Your task to perform on an android device: clear history in the chrome app Image 0: 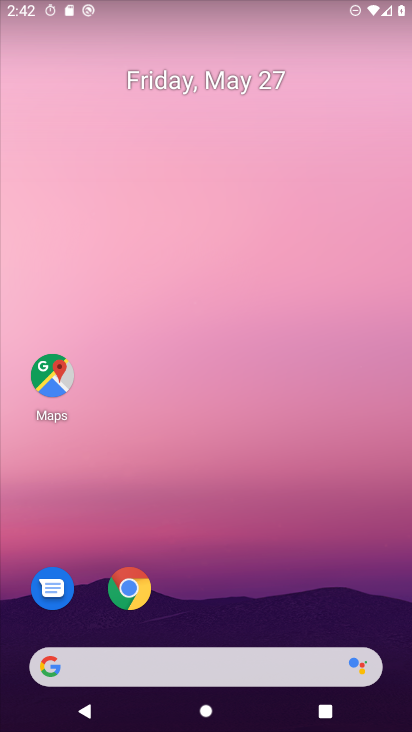
Step 0: click (140, 585)
Your task to perform on an android device: clear history in the chrome app Image 1: 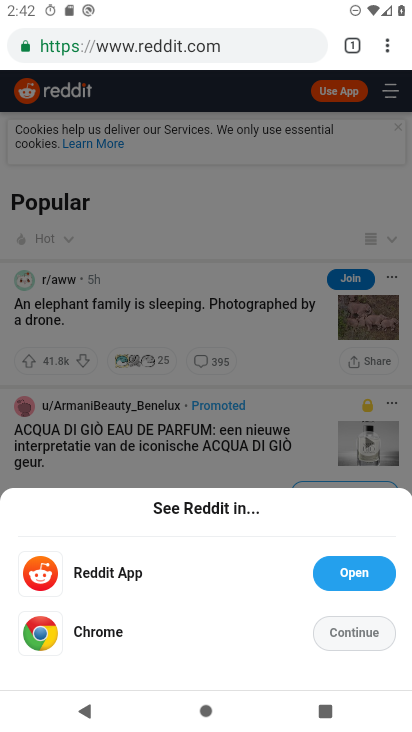
Step 1: click (386, 50)
Your task to perform on an android device: clear history in the chrome app Image 2: 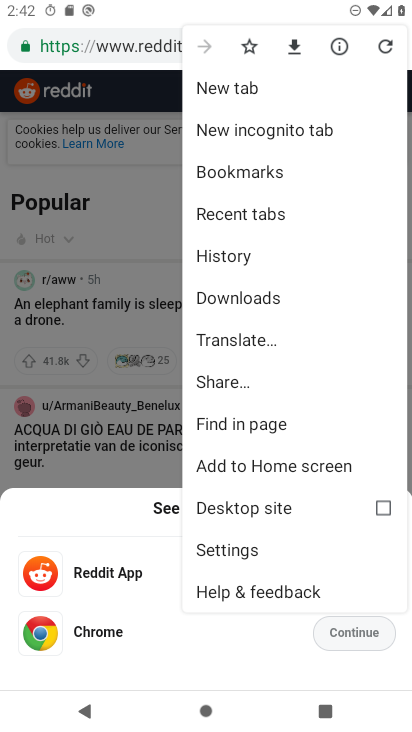
Step 2: click (237, 257)
Your task to perform on an android device: clear history in the chrome app Image 3: 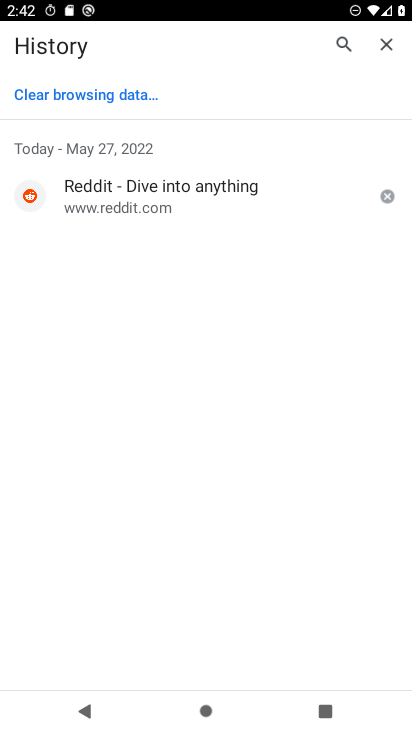
Step 3: click (52, 97)
Your task to perform on an android device: clear history in the chrome app Image 4: 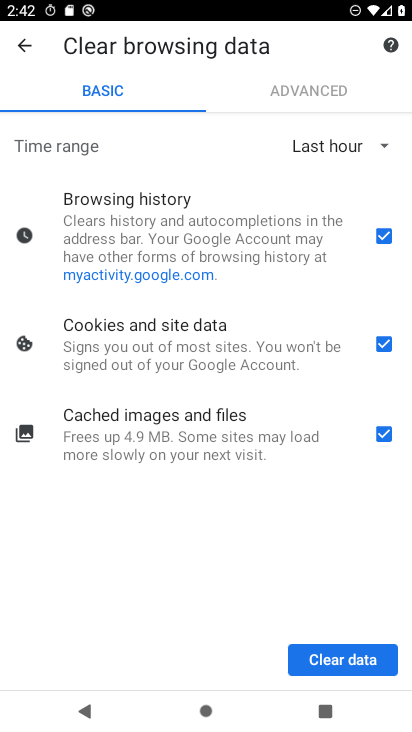
Step 4: click (358, 662)
Your task to perform on an android device: clear history in the chrome app Image 5: 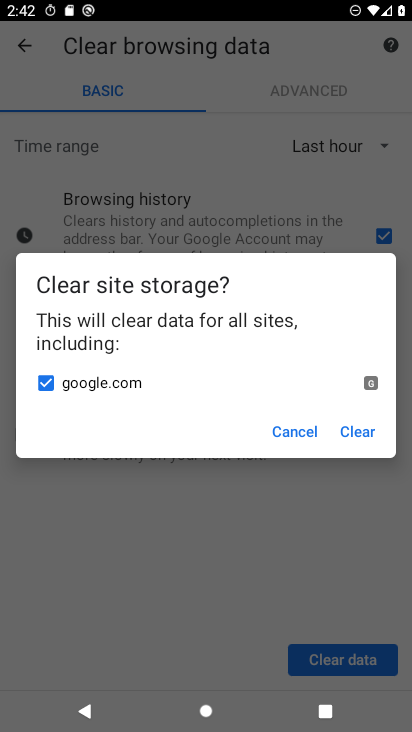
Step 5: click (360, 429)
Your task to perform on an android device: clear history in the chrome app Image 6: 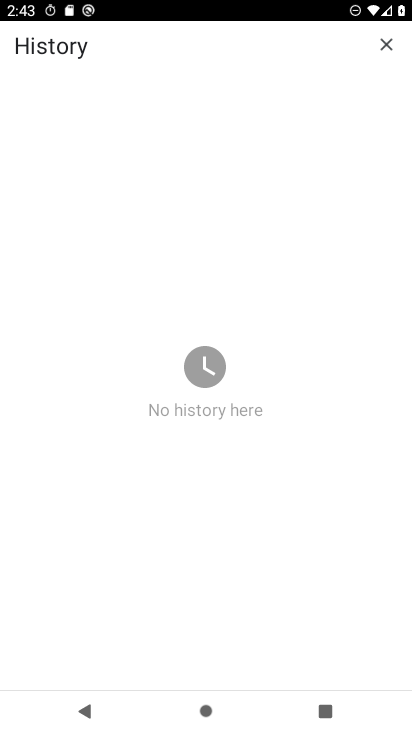
Step 6: task complete